Your task to perform on an android device: Open settings on Google Maps Image 0: 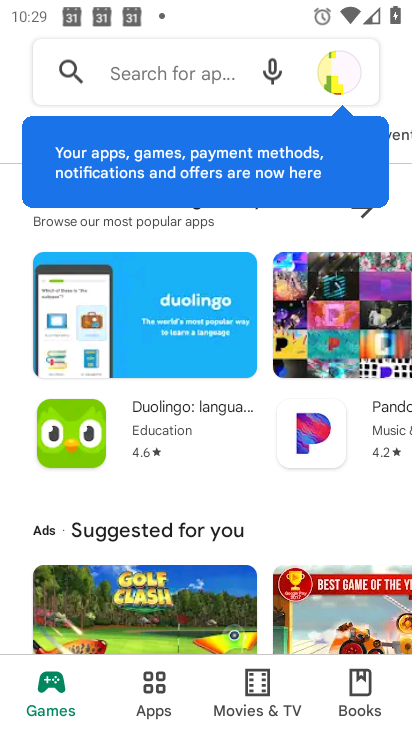
Step 0: press home button
Your task to perform on an android device: Open settings on Google Maps Image 1: 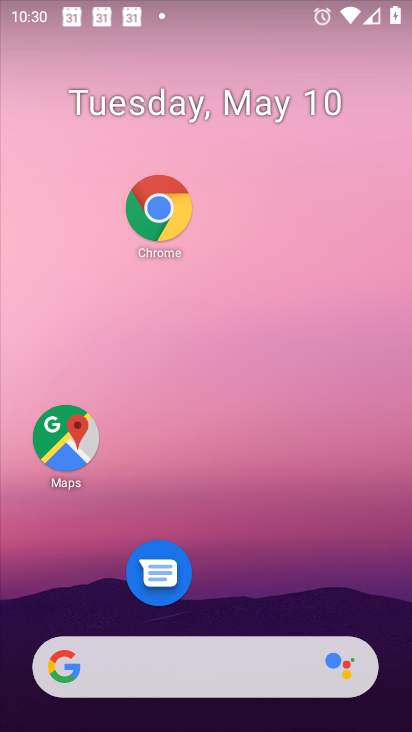
Step 1: drag from (285, 715) to (367, 246)
Your task to perform on an android device: Open settings on Google Maps Image 2: 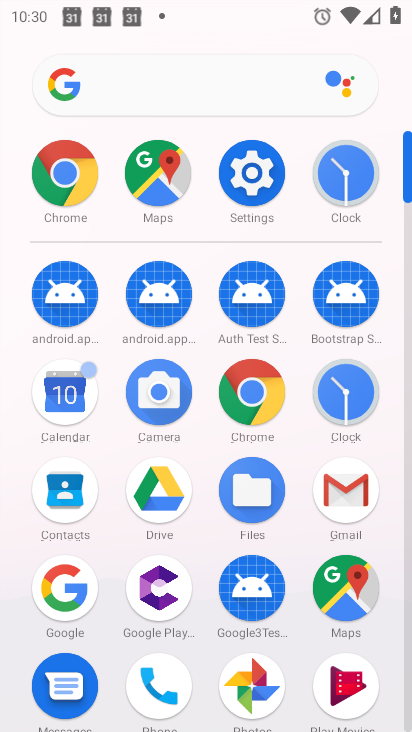
Step 2: click (333, 589)
Your task to perform on an android device: Open settings on Google Maps Image 3: 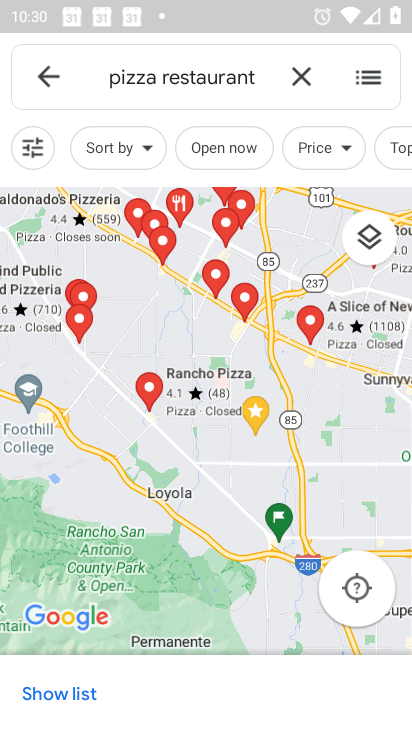
Step 3: click (148, 295)
Your task to perform on an android device: Open settings on Google Maps Image 4: 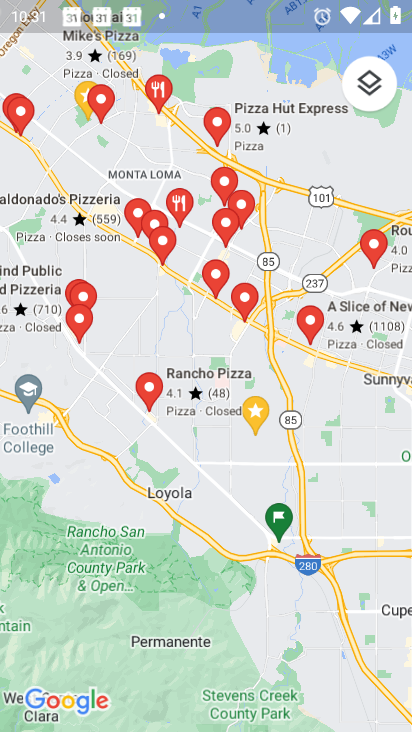
Step 4: drag from (204, 214) to (226, 340)
Your task to perform on an android device: Open settings on Google Maps Image 5: 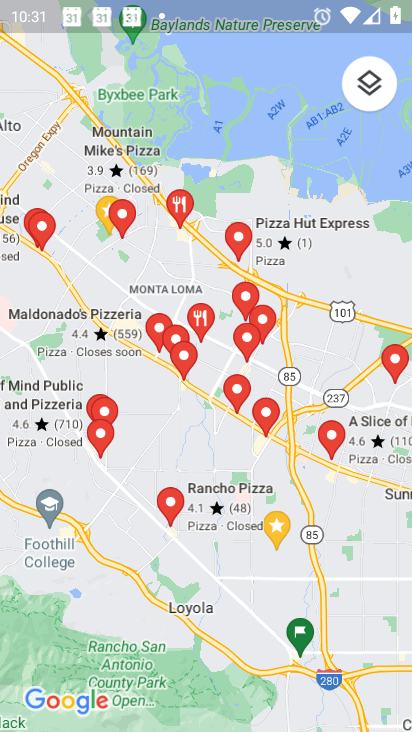
Step 5: click (119, 138)
Your task to perform on an android device: Open settings on Google Maps Image 6: 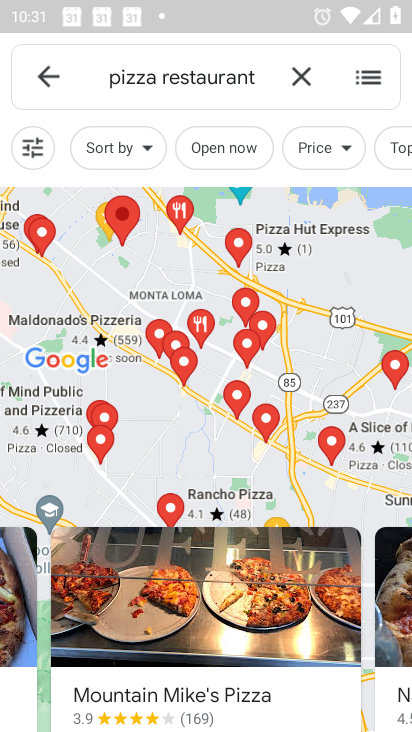
Step 6: click (53, 79)
Your task to perform on an android device: Open settings on Google Maps Image 7: 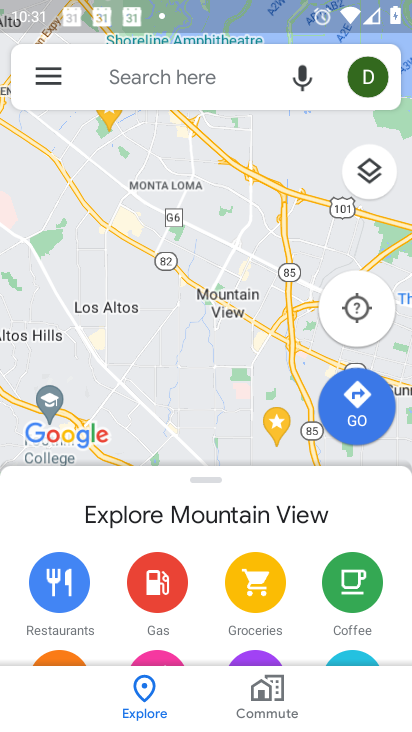
Step 7: click (49, 80)
Your task to perform on an android device: Open settings on Google Maps Image 8: 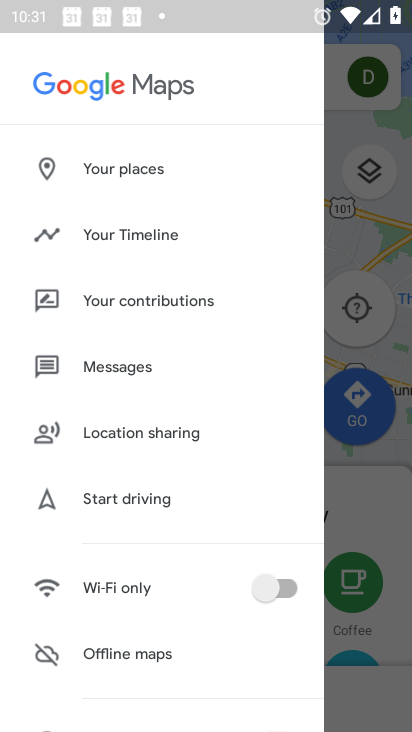
Step 8: drag from (87, 619) to (182, 328)
Your task to perform on an android device: Open settings on Google Maps Image 9: 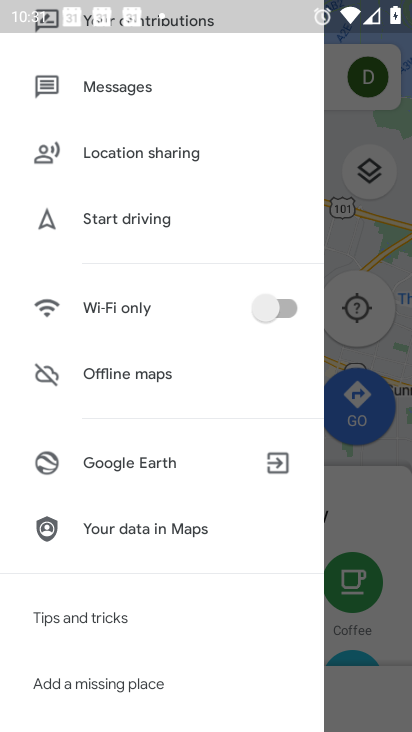
Step 9: drag from (123, 533) to (195, 318)
Your task to perform on an android device: Open settings on Google Maps Image 10: 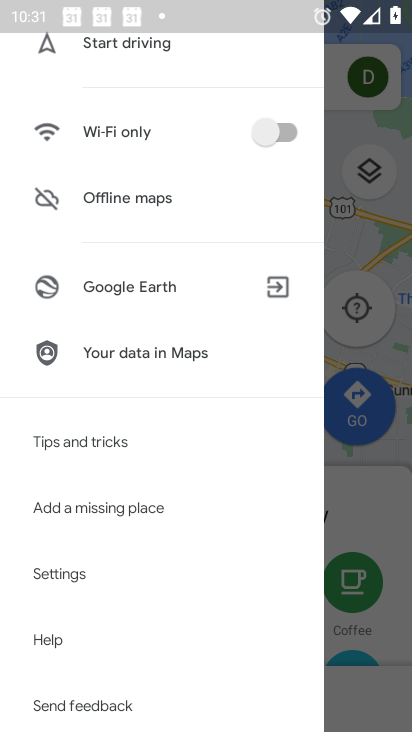
Step 10: click (78, 577)
Your task to perform on an android device: Open settings on Google Maps Image 11: 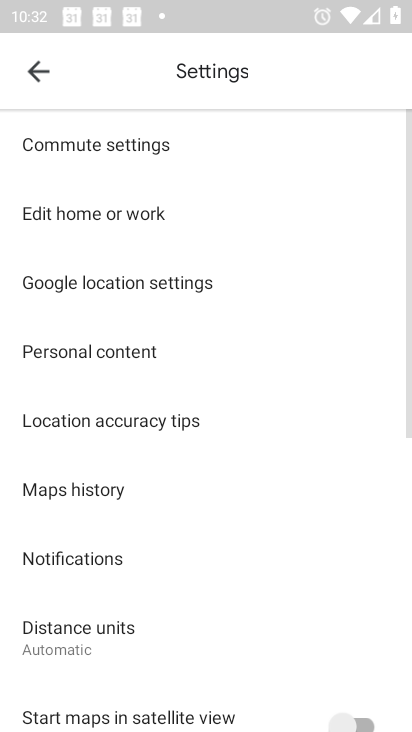
Step 11: task complete